Your task to perform on an android device: Do I have any events today? Image 0: 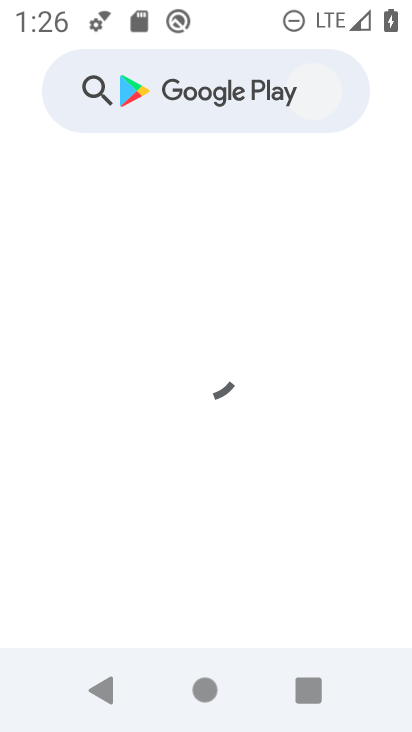
Step 0: click (369, 484)
Your task to perform on an android device: Do I have any events today? Image 1: 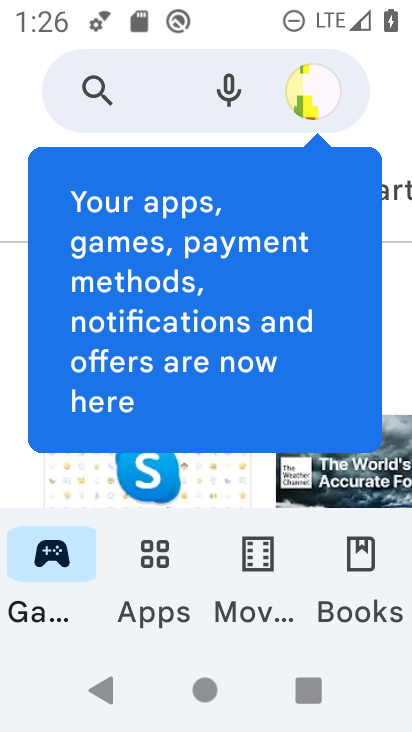
Step 1: press home button
Your task to perform on an android device: Do I have any events today? Image 2: 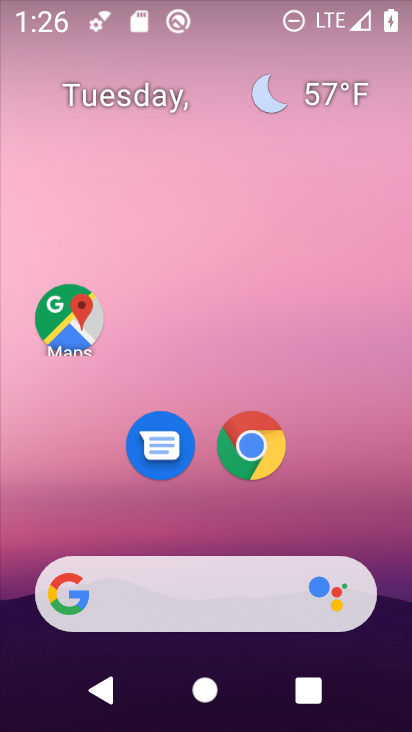
Step 2: drag from (359, 506) to (322, 164)
Your task to perform on an android device: Do I have any events today? Image 3: 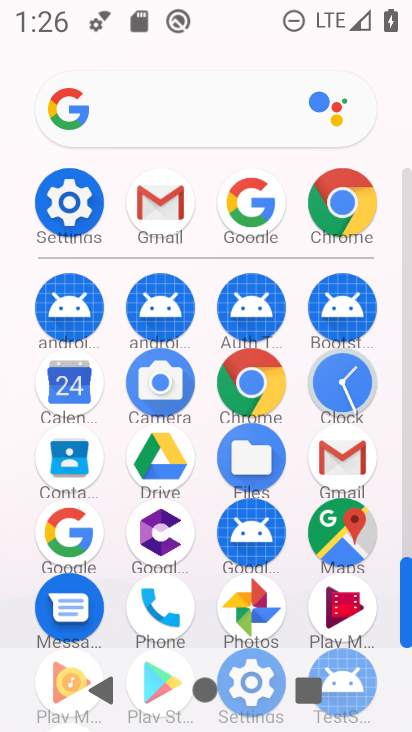
Step 3: click (65, 401)
Your task to perform on an android device: Do I have any events today? Image 4: 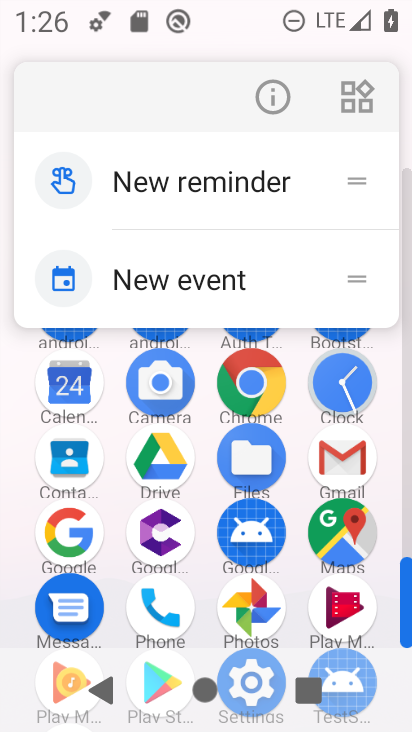
Step 4: click (65, 401)
Your task to perform on an android device: Do I have any events today? Image 5: 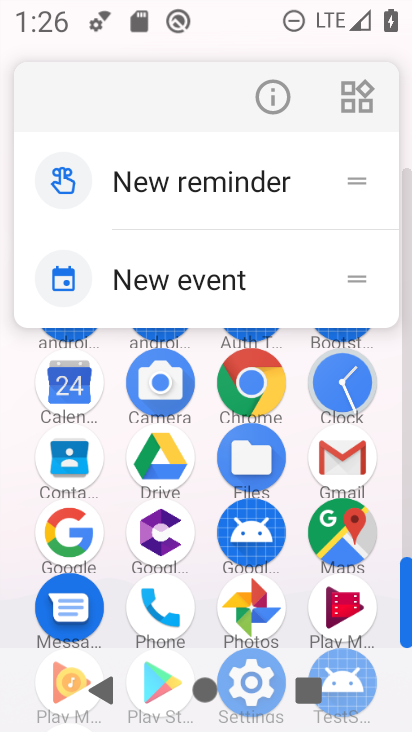
Step 5: click (65, 400)
Your task to perform on an android device: Do I have any events today? Image 6: 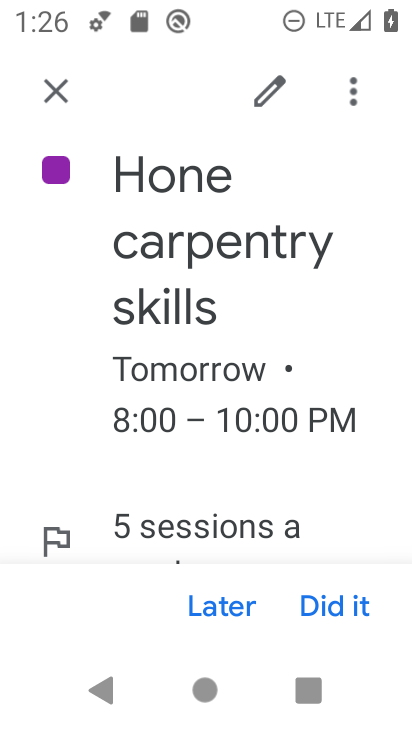
Step 6: click (63, 95)
Your task to perform on an android device: Do I have any events today? Image 7: 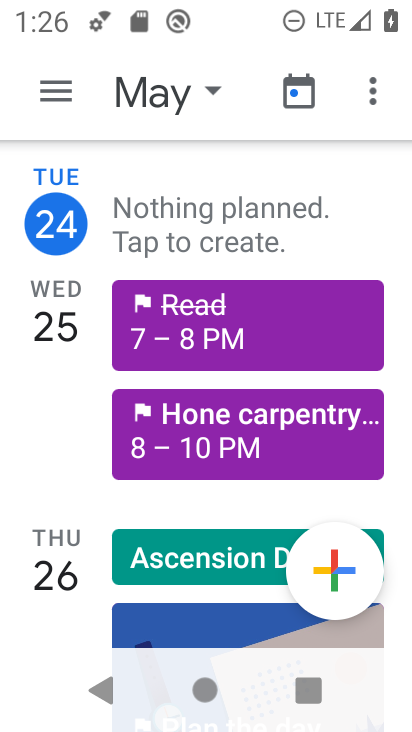
Step 7: click (235, 225)
Your task to perform on an android device: Do I have any events today? Image 8: 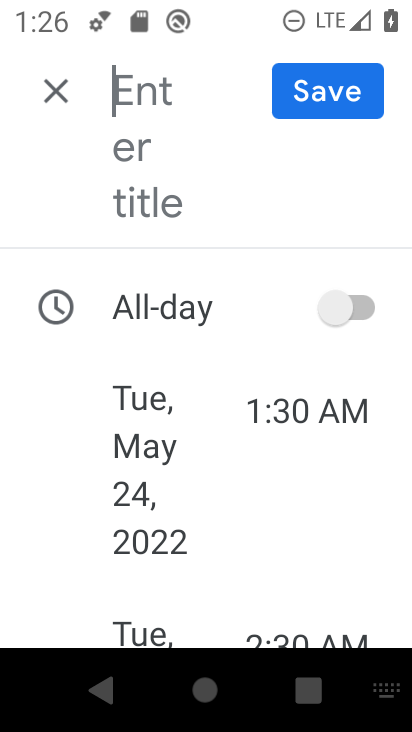
Step 8: task complete